Your task to perform on an android device: check data usage Image 0: 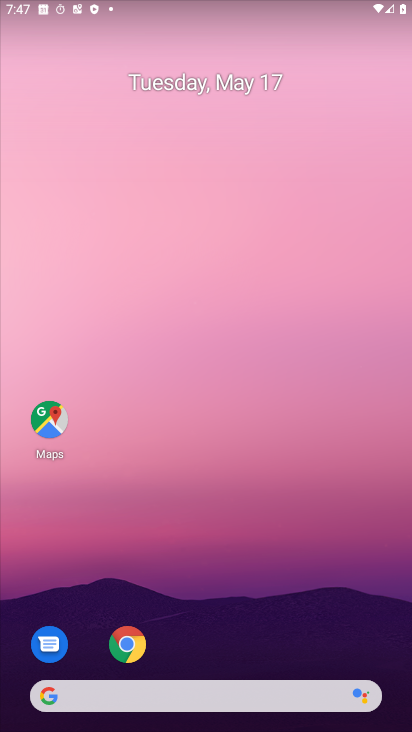
Step 0: drag from (342, 640) to (267, 2)
Your task to perform on an android device: check data usage Image 1: 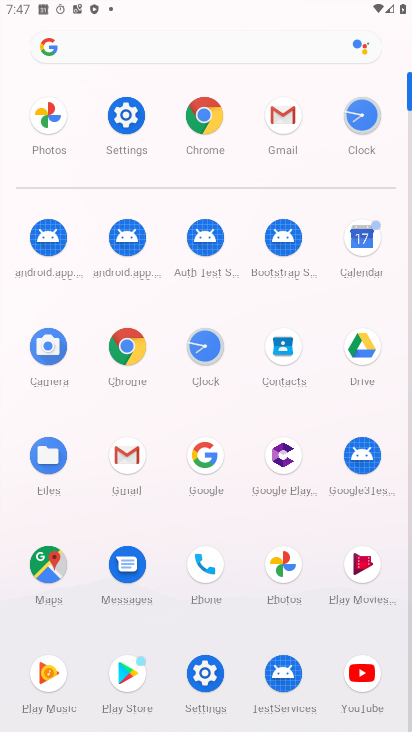
Step 1: click (205, 670)
Your task to perform on an android device: check data usage Image 2: 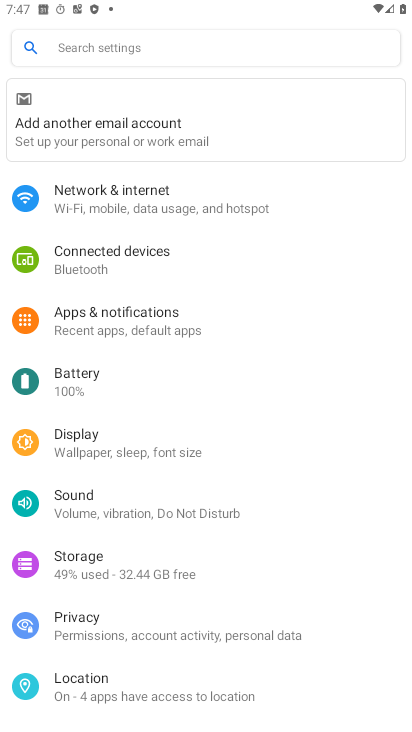
Step 2: click (163, 322)
Your task to perform on an android device: check data usage Image 3: 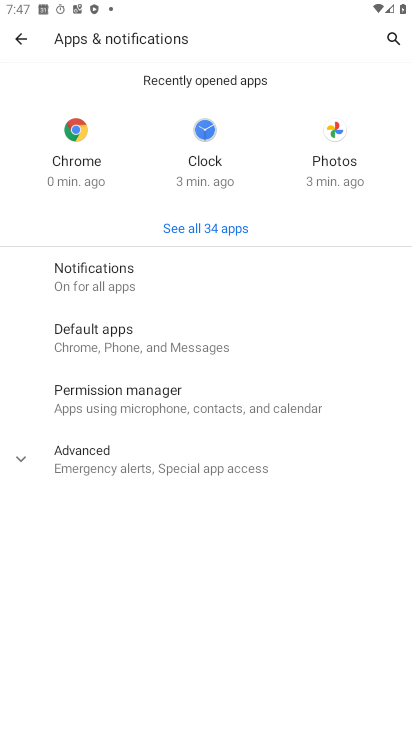
Step 3: press back button
Your task to perform on an android device: check data usage Image 4: 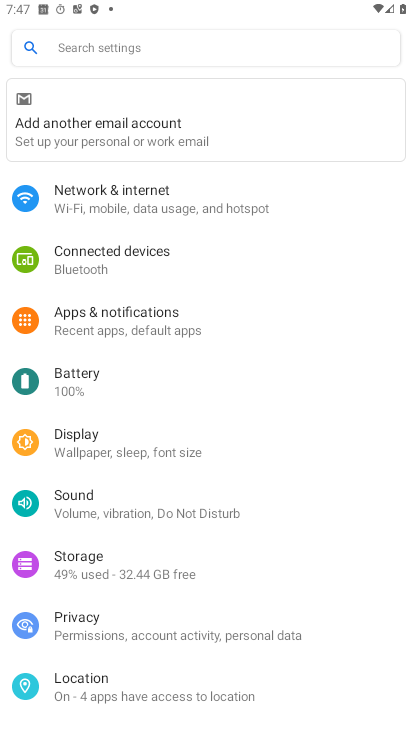
Step 4: click (155, 184)
Your task to perform on an android device: check data usage Image 5: 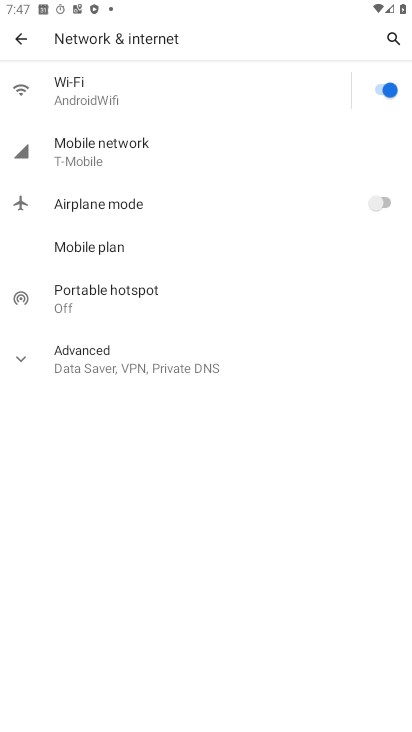
Step 5: click (155, 159)
Your task to perform on an android device: check data usage Image 6: 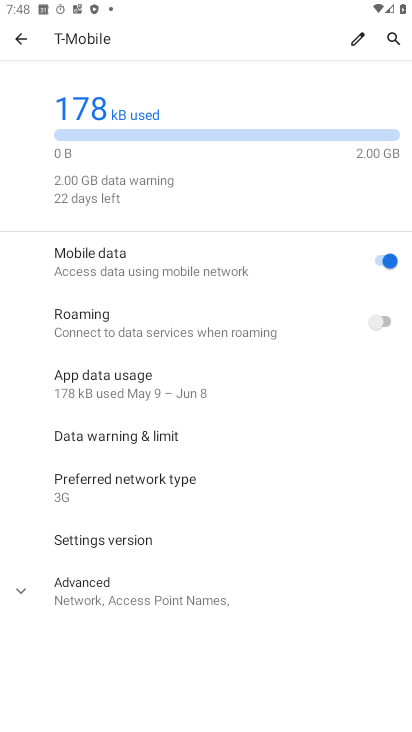
Step 6: click (139, 385)
Your task to perform on an android device: check data usage Image 7: 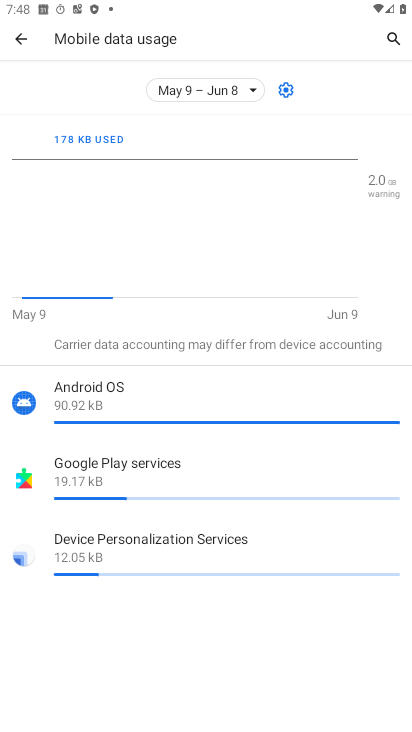
Step 7: task complete